Your task to perform on an android device: What's on my calendar tomorrow? Image 0: 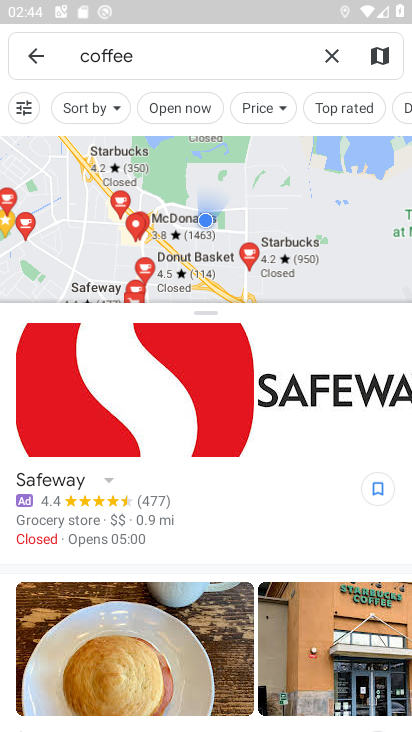
Step 0: press back button
Your task to perform on an android device: What's on my calendar tomorrow? Image 1: 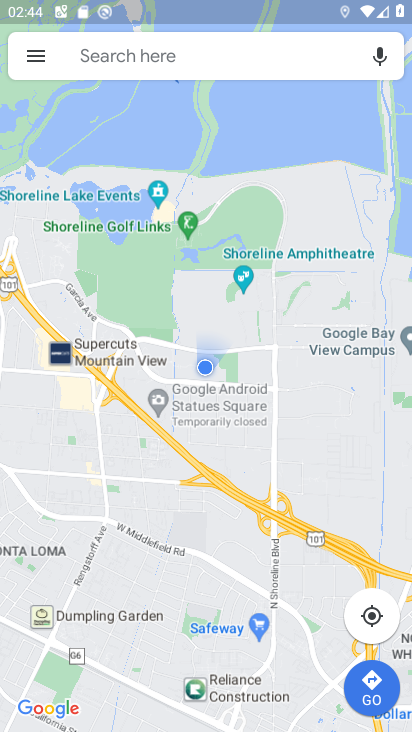
Step 1: press home button
Your task to perform on an android device: What's on my calendar tomorrow? Image 2: 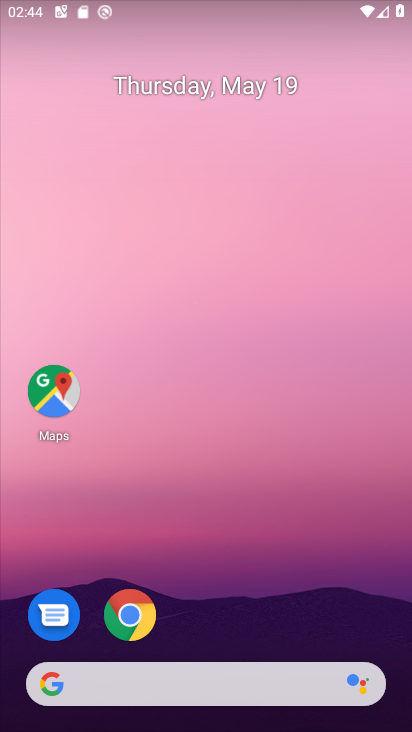
Step 2: drag from (282, 588) to (215, 19)
Your task to perform on an android device: What's on my calendar tomorrow? Image 3: 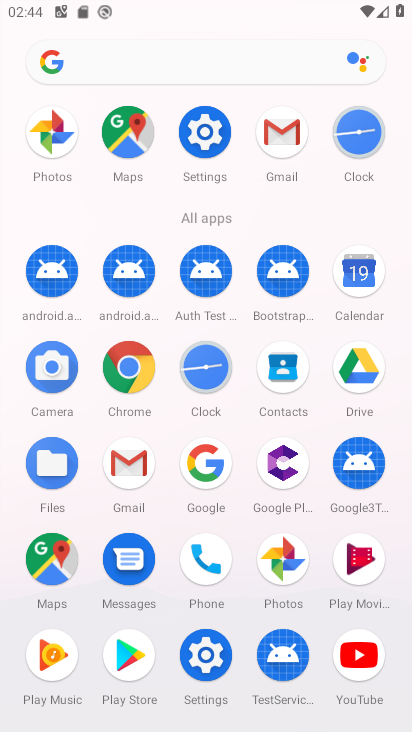
Step 3: click (361, 264)
Your task to perform on an android device: What's on my calendar tomorrow? Image 4: 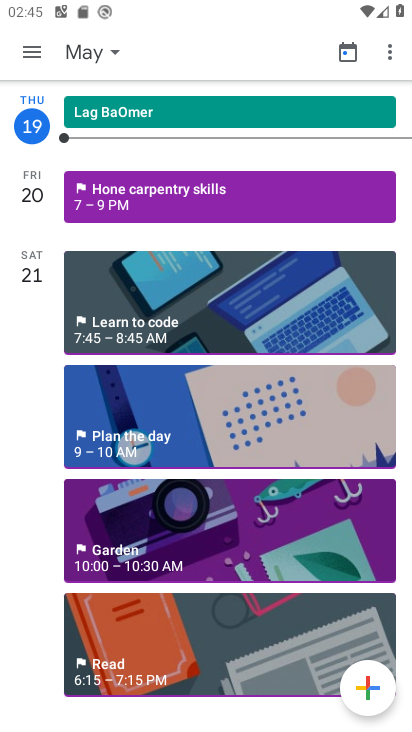
Step 4: click (84, 50)
Your task to perform on an android device: What's on my calendar tomorrow? Image 5: 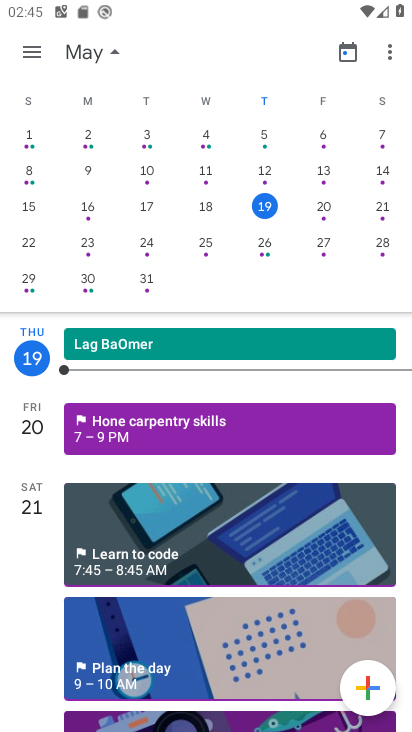
Step 5: click (319, 204)
Your task to perform on an android device: What's on my calendar tomorrow? Image 6: 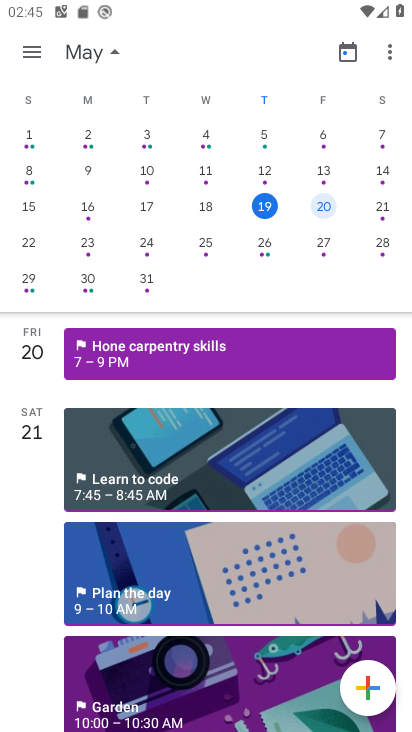
Step 6: click (352, 55)
Your task to perform on an android device: What's on my calendar tomorrow? Image 7: 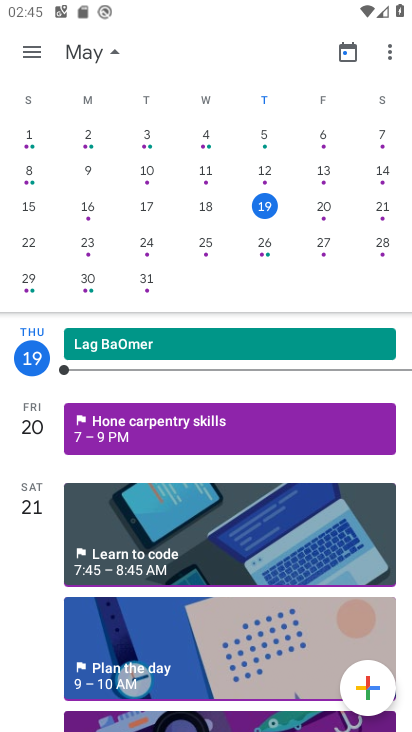
Step 7: click (319, 203)
Your task to perform on an android device: What's on my calendar tomorrow? Image 8: 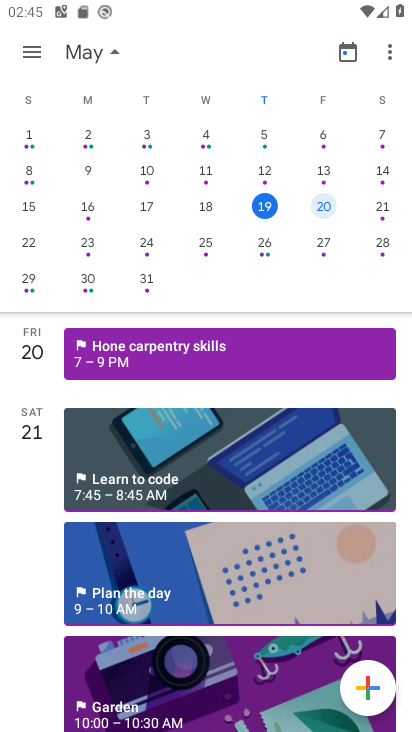
Step 8: click (9, 35)
Your task to perform on an android device: What's on my calendar tomorrow? Image 9: 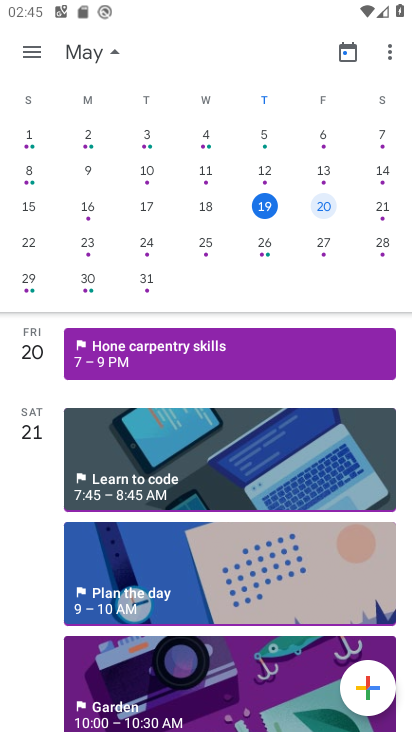
Step 9: click (29, 37)
Your task to perform on an android device: What's on my calendar tomorrow? Image 10: 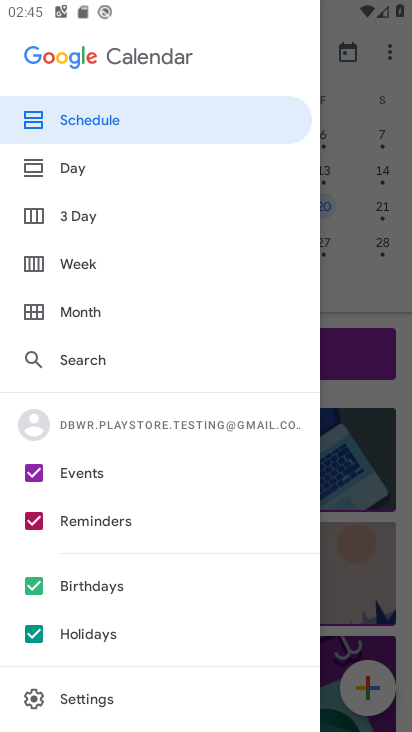
Step 10: click (100, 173)
Your task to perform on an android device: What's on my calendar tomorrow? Image 11: 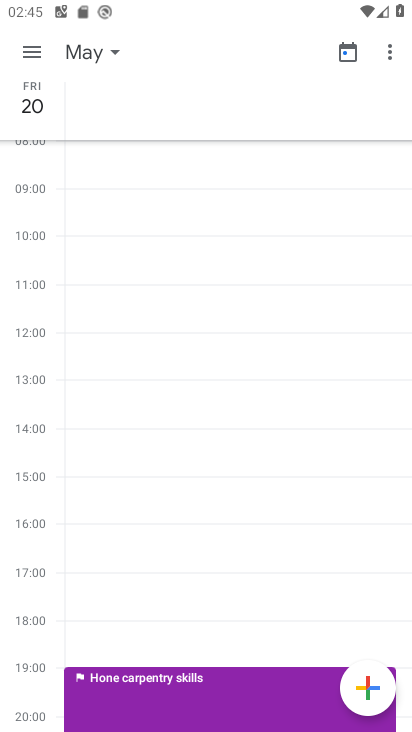
Step 11: task complete